Your task to perform on an android device: Search for pizza restaurants on Maps Image 0: 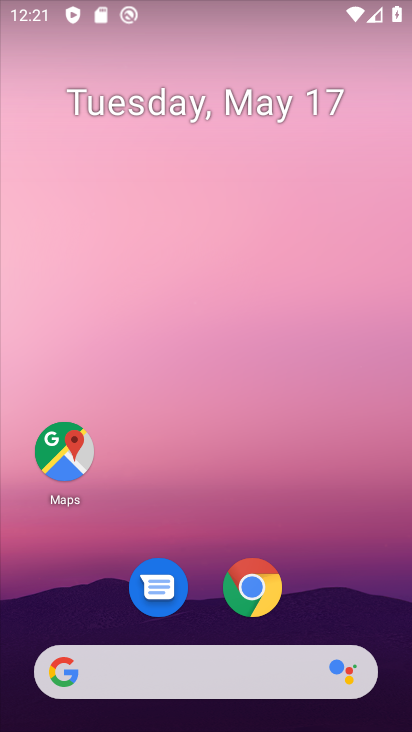
Step 0: drag from (134, 635) to (82, 3)
Your task to perform on an android device: Search for pizza restaurants on Maps Image 1: 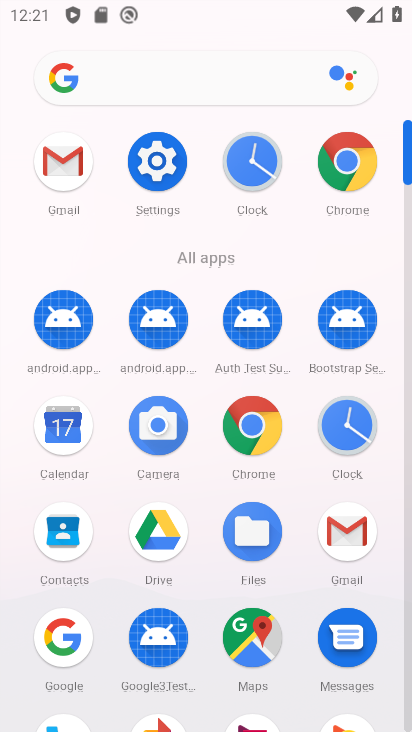
Step 1: drag from (325, 545) to (322, 199)
Your task to perform on an android device: Search for pizza restaurants on Maps Image 2: 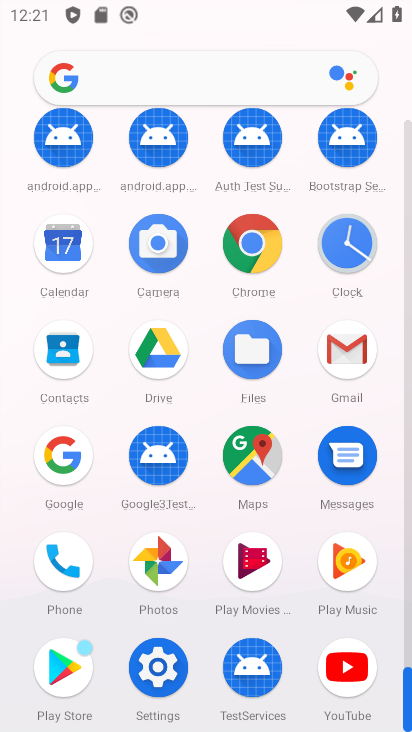
Step 2: click (268, 444)
Your task to perform on an android device: Search for pizza restaurants on Maps Image 3: 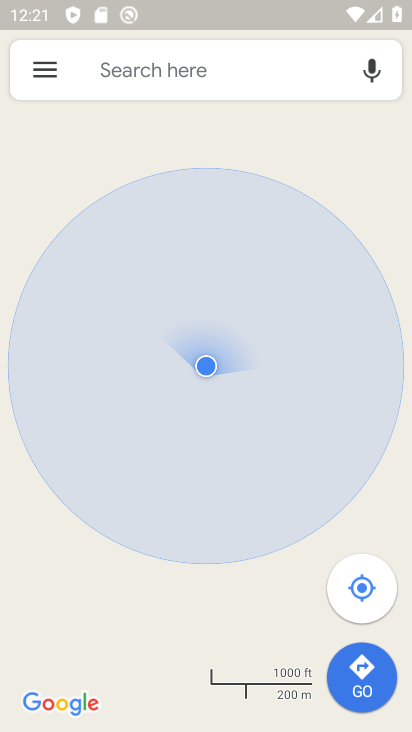
Step 3: click (190, 77)
Your task to perform on an android device: Search for pizza restaurants on Maps Image 4: 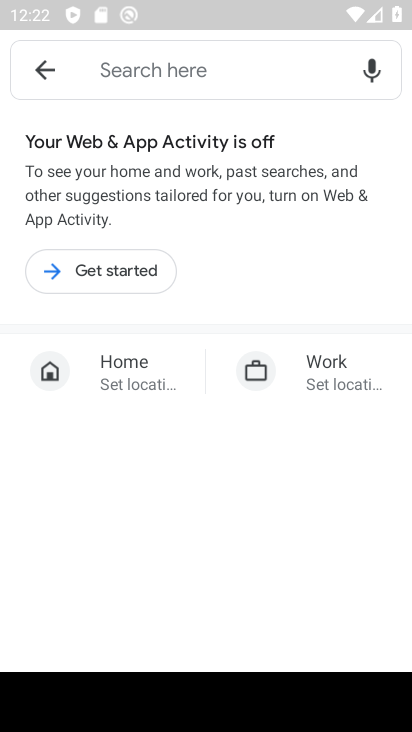
Step 4: click (117, 264)
Your task to perform on an android device: Search for pizza restaurants on Maps Image 5: 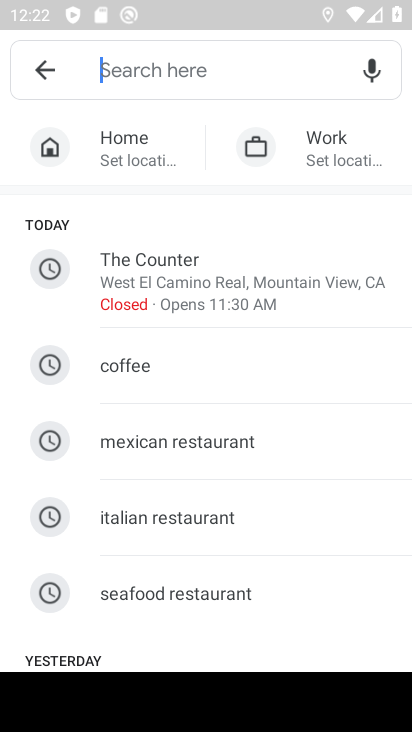
Step 5: type "pizza"
Your task to perform on an android device: Search for pizza restaurants on Maps Image 6: 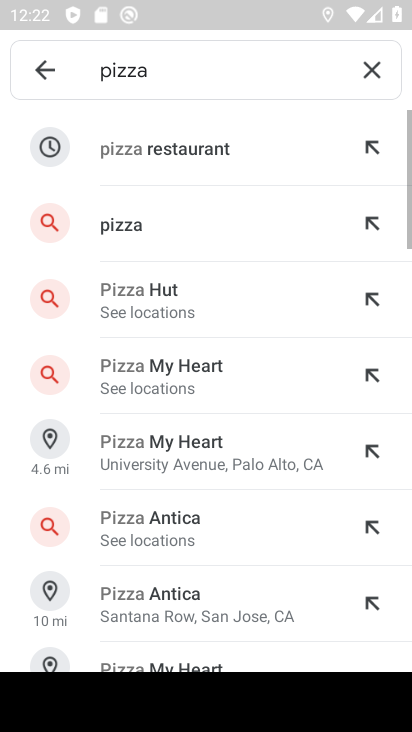
Step 6: click (60, 145)
Your task to perform on an android device: Search for pizza restaurants on Maps Image 7: 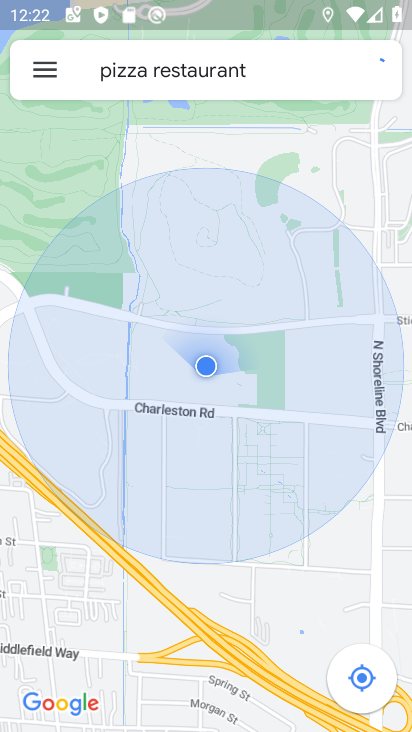
Step 7: task complete